Your task to perform on an android device: Open CNN.com Image 0: 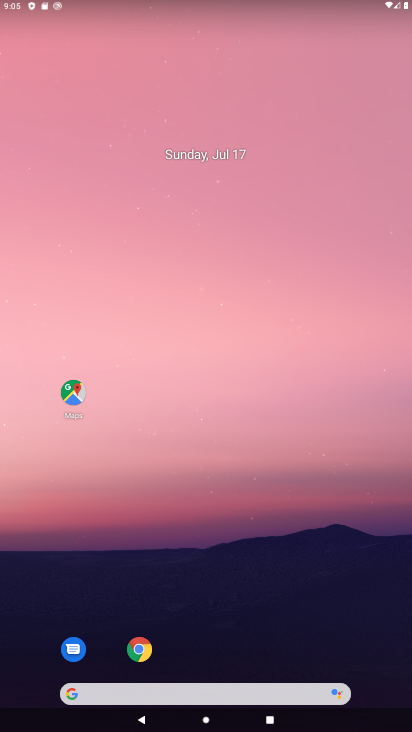
Step 0: click (115, 692)
Your task to perform on an android device: Open CNN.com Image 1: 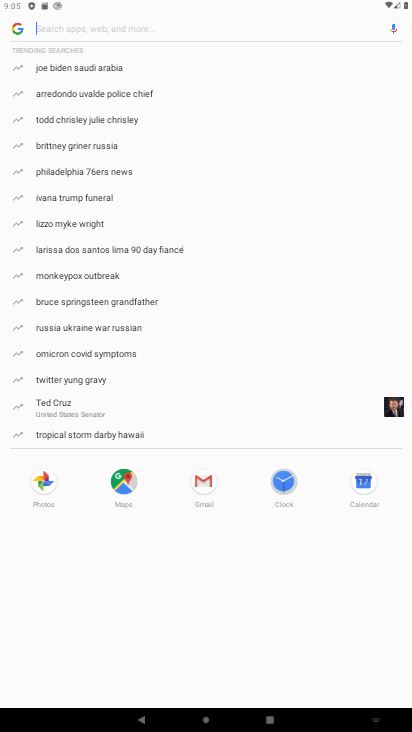
Step 1: type " CNN.com"
Your task to perform on an android device: Open CNN.com Image 2: 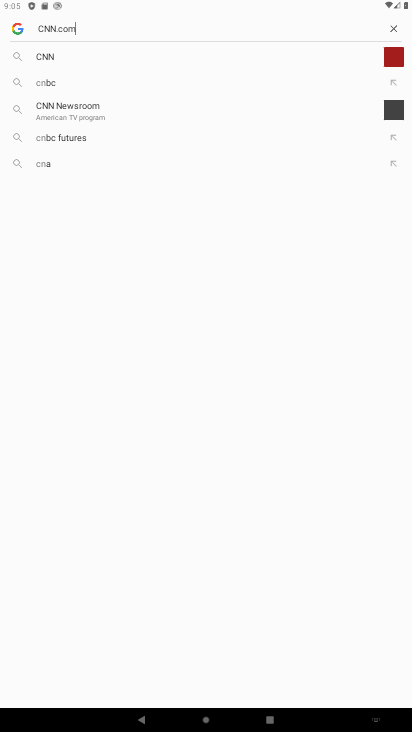
Step 2: type ""
Your task to perform on an android device: Open CNN.com Image 3: 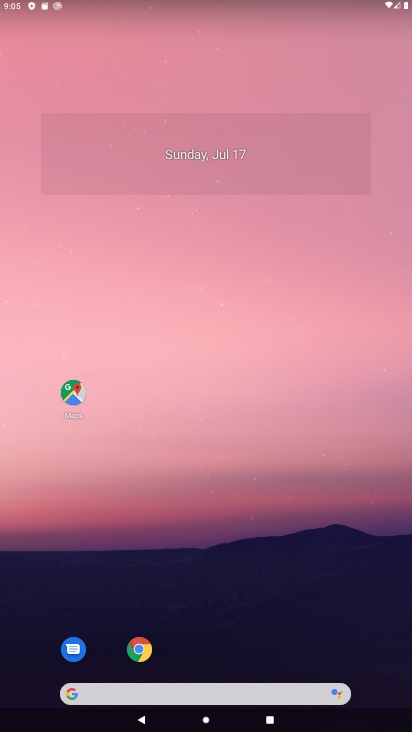
Step 3: type ""
Your task to perform on an android device: Open CNN.com Image 4: 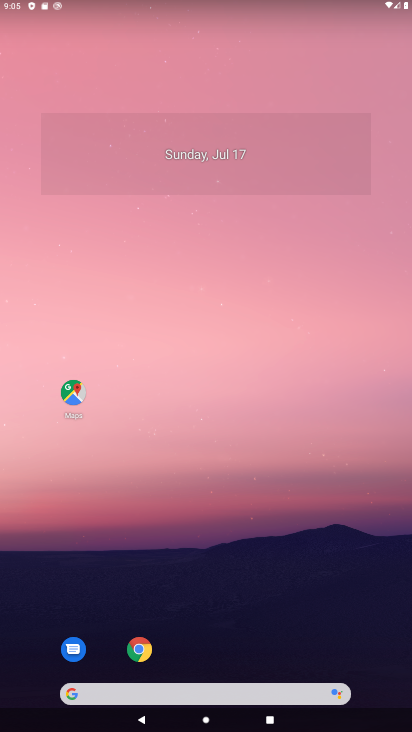
Step 4: type ""
Your task to perform on an android device: Open CNN.com Image 5: 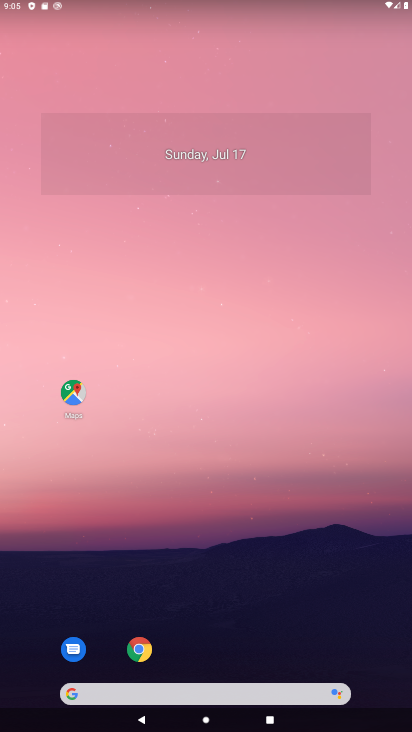
Step 5: click (130, 690)
Your task to perform on an android device: Open CNN.com Image 6: 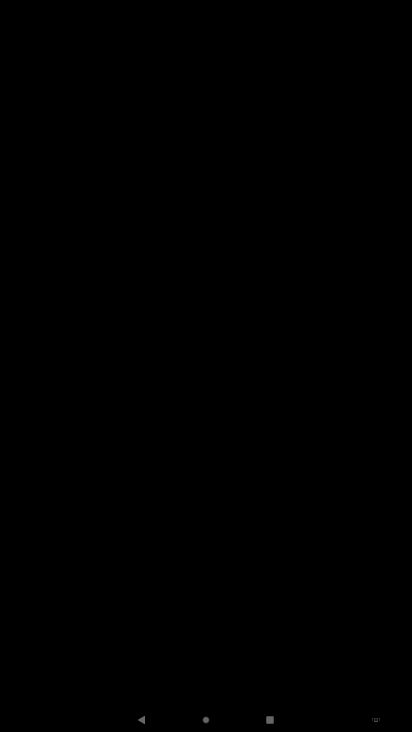
Step 6: type "CNN.com"
Your task to perform on an android device: Open CNN.com Image 7: 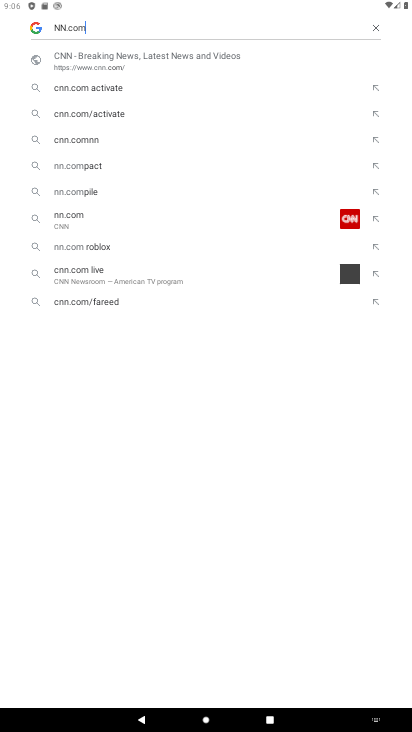
Step 7: click (157, 61)
Your task to perform on an android device: Open CNN.com Image 8: 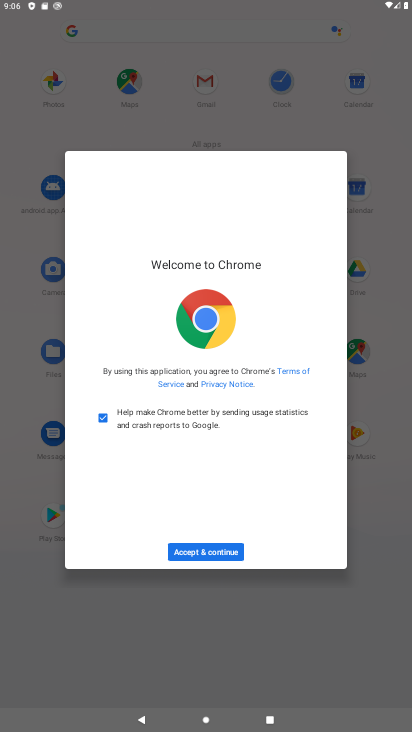
Step 8: click (225, 556)
Your task to perform on an android device: Open CNN.com Image 9: 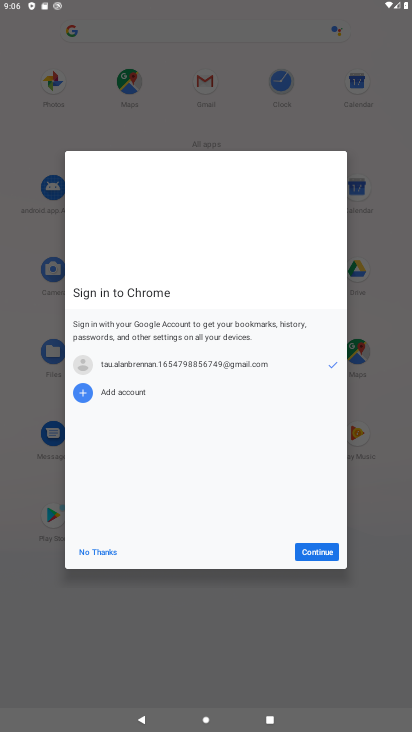
Step 9: click (321, 542)
Your task to perform on an android device: Open CNN.com Image 10: 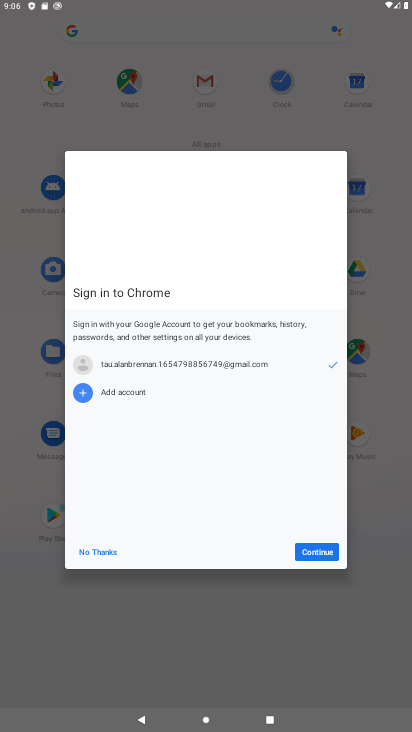
Step 10: click (311, 555)
Your task to perform on an android device: Open CNN.com Image 11: 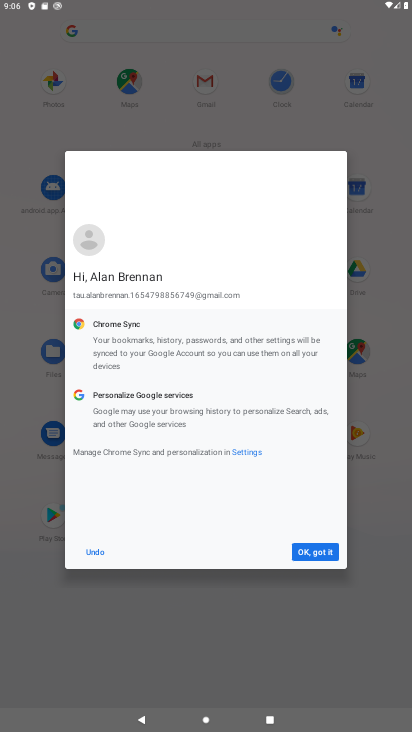
Step 11: click (311, 558)
Your task to perform on an android device: Open CNN.com Image 12: 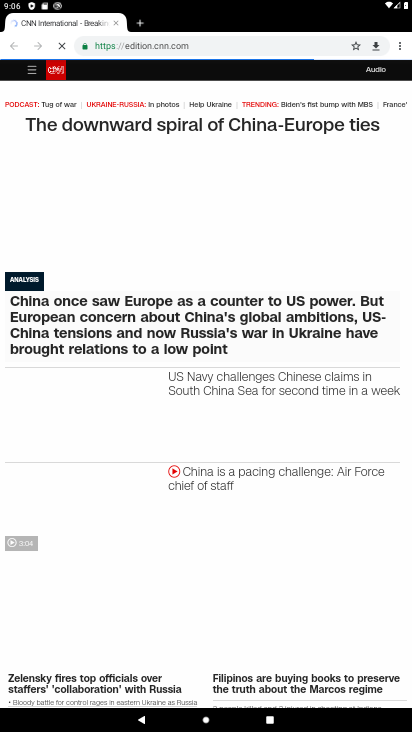
Step 12: task complete